Your task to perform on an android device: turn on sleep mode Image 0: 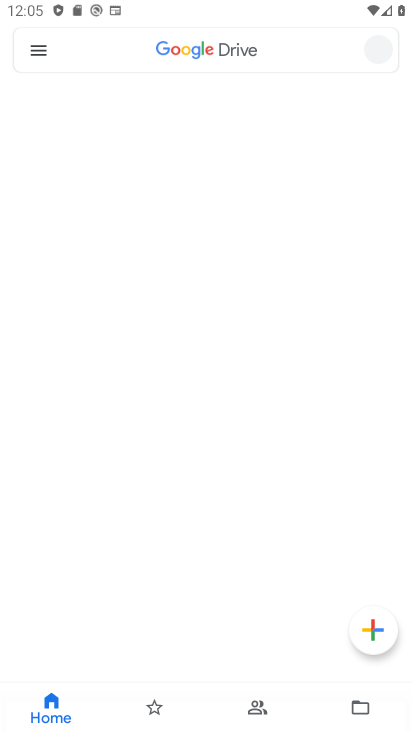
Step 0: press home button
Your task to perform on an android device: turn on sleep mode Image 1: 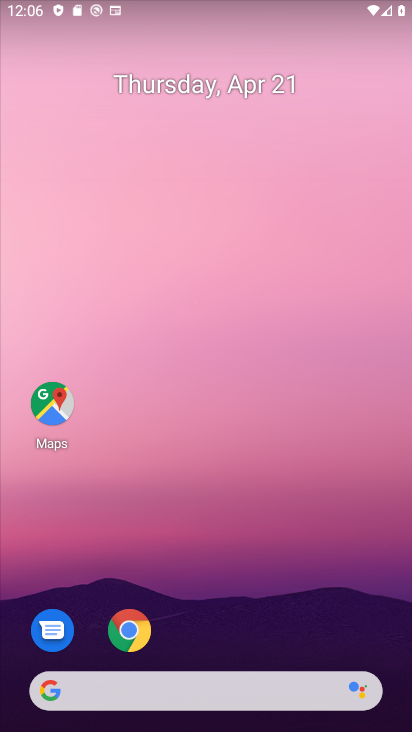
Step 1: drag from (278, 580) to (226, 130)
Your task to perform on an android device: turn on sleep mode Image 2: 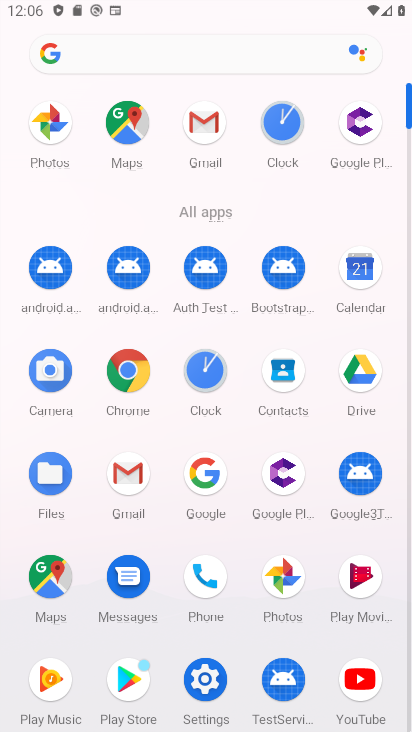
Step 2: click (213, 686)
Your task to perform on an android device: turn on sleep mode Image 3: 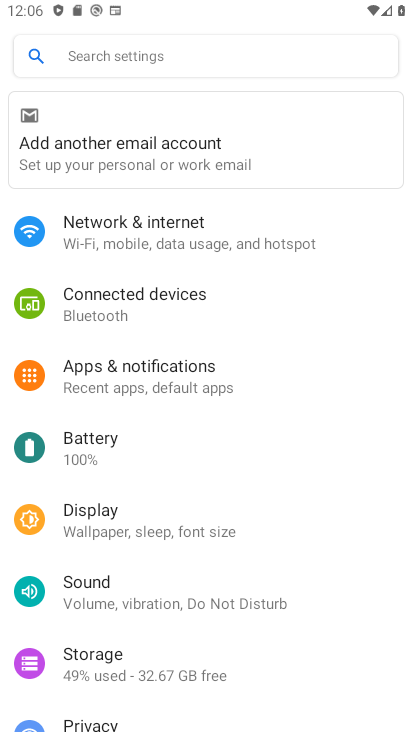
Step 3: click (254, 518)
Your task to perform on an android device: turn on sleep mode Image 4: 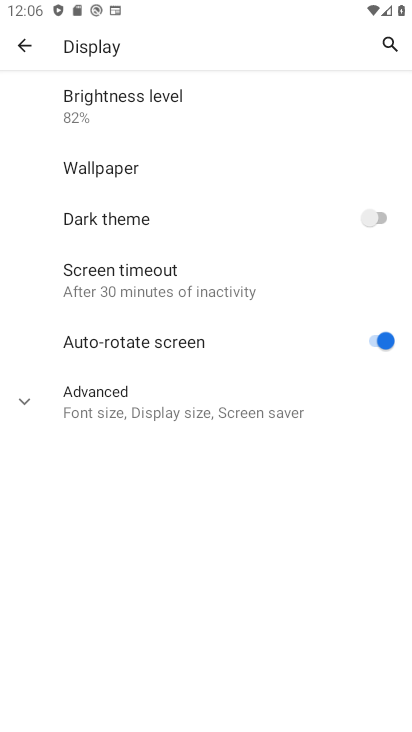
Step 4: click (207, 287)
Your task to perform on an android device: turn on sleep mode Image 5: 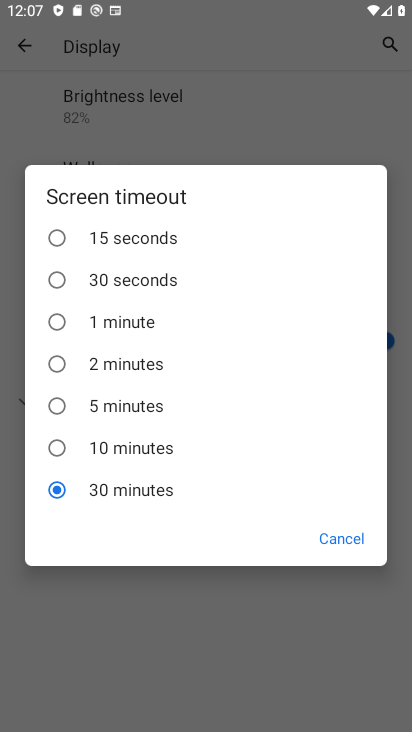
Step 5: click (195, 295)
Your task to perform on an android device: turn on sleep mode Image 6: 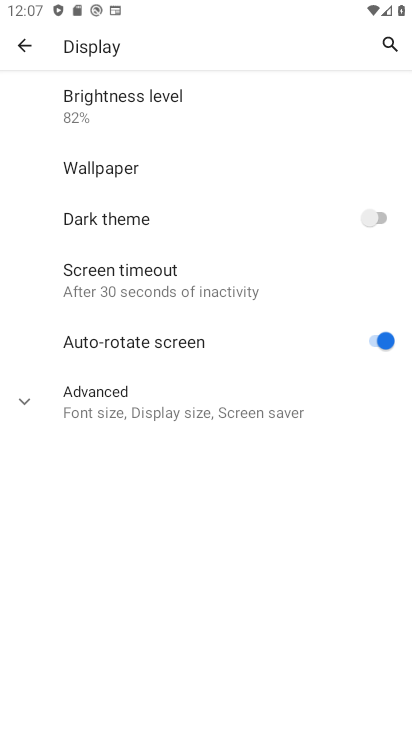
Step 6: task complete